Your task to perform on an android device: turn on data saver in the chrome app Image 0: 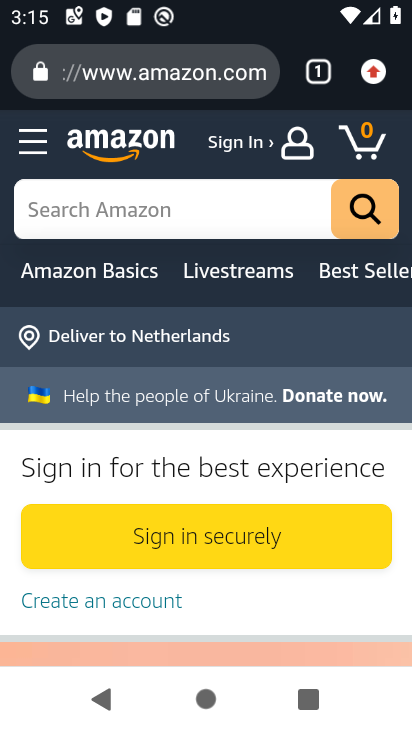
Step 0: press home button
Your task to perform on an android device: turn on data saver in the chrome app Image 1: 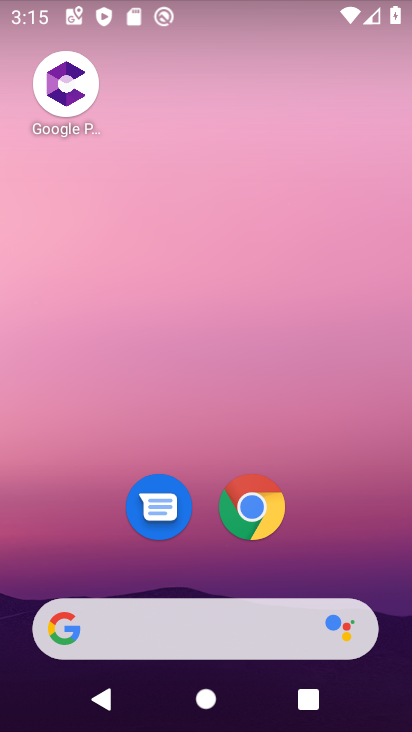
Step 1: click (264, 514)
Your task to perform on an android device: turn on data saver in the chrome app Image 2: 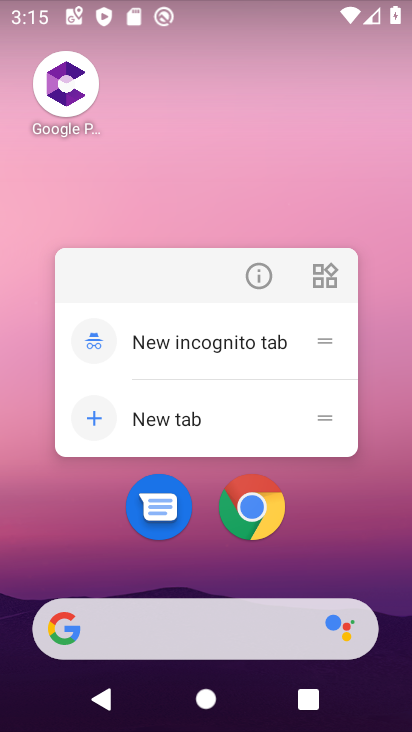
Step 2: click (265, 513)
Your task to perform on an android device: turn on data saver in the chrome app Image 3: 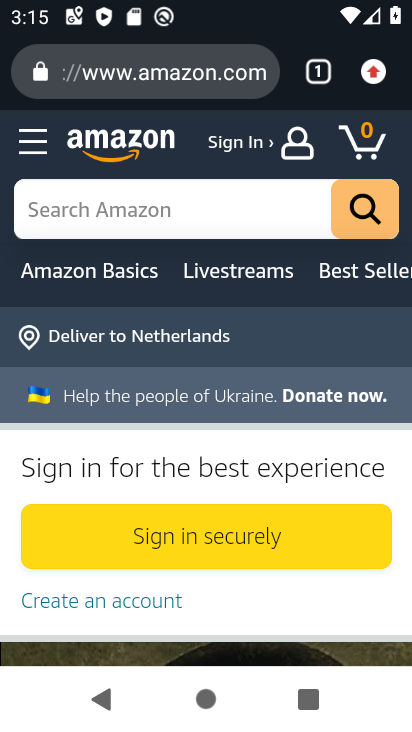
Step 3: click (372, 79)
Your task to perform on an android device: turn on data saver in the chrome app Image 4: 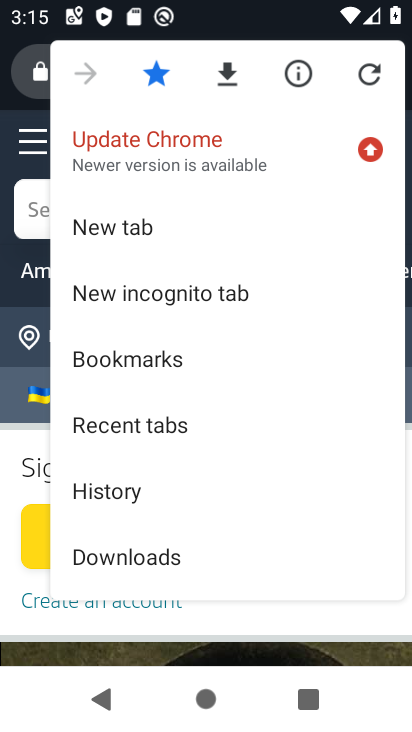
Step 4: drag from (295, 478) to (295, 244)
Your task to perform on an android device: turn on data saver in the chrome app Image 5: 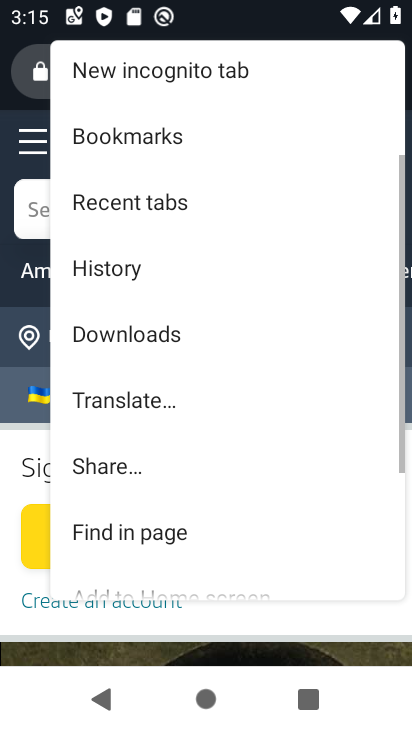
Step 5: drag from (173, 503) to (247, 230)
Your task to perform on an android device: turn on data saver in the chrome app Image 6: 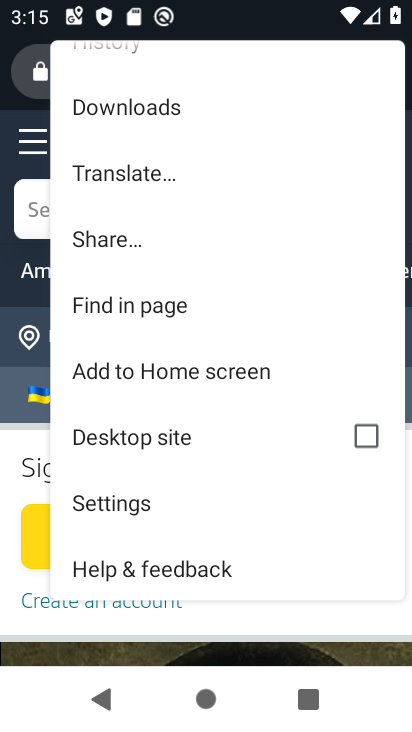
Step 6: click (106, 503)
Your task to perform on an android device: turn on data saver in the chrome app Image 7: 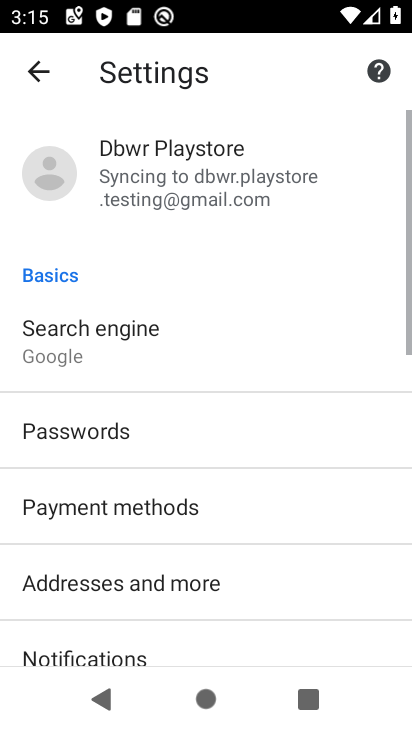
Step 7: drag from (297, 597) to (298, 268)
Your task to perform on an android device: turn on data saver in the chrome app Image 8: 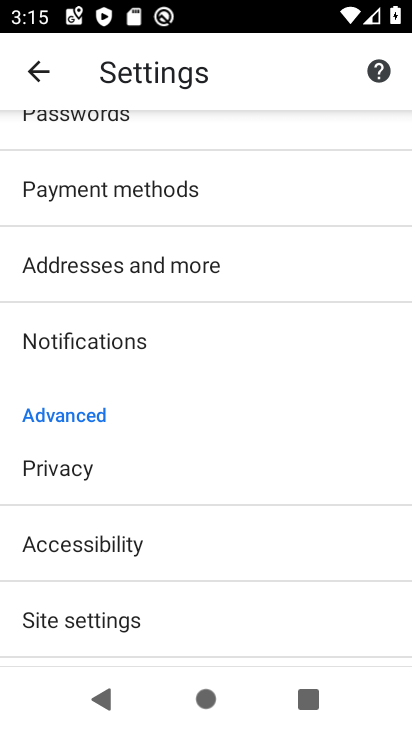
Step 8: drag from (322, 592) to (322, 321)
Your task to perform on an android device: turn on data saver in the chrome app Image 9: 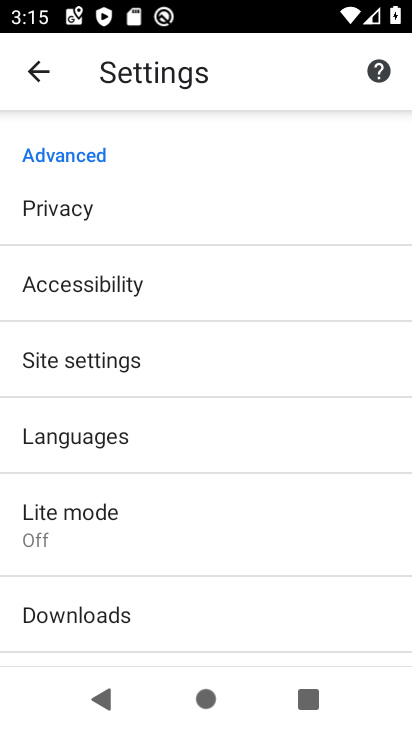
Step 9: click (125, 519)
Your task to perform on an android device: turn on data saver in the chrome app Image 10: 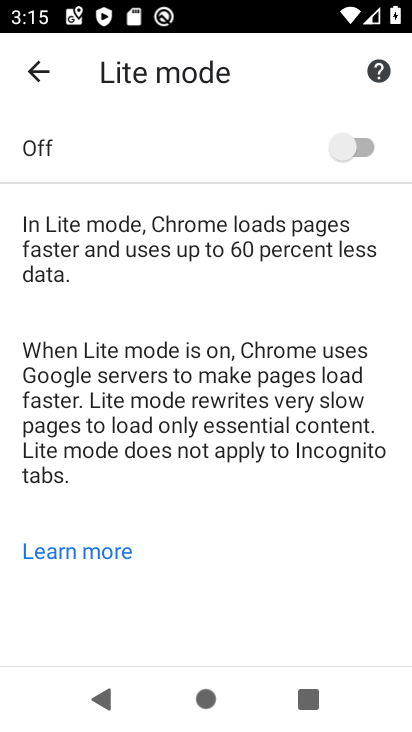
Step 10: click (368, 145)
Your task to perform on an android device: turn on data saver in the chrome app Image 11: 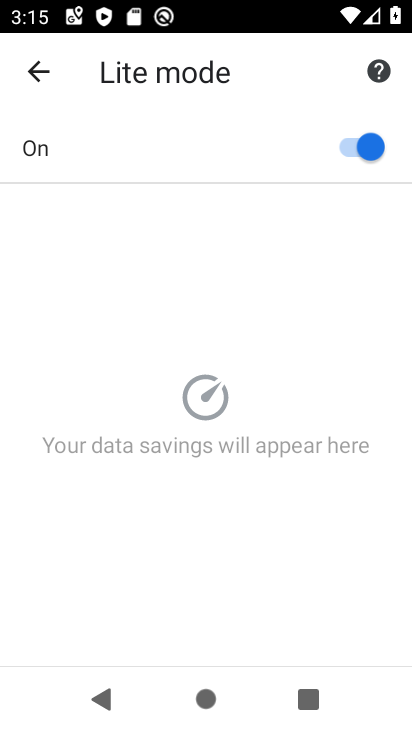
Step 11: task complete